Your task to perform on an android device: Go to eBay Image 0: 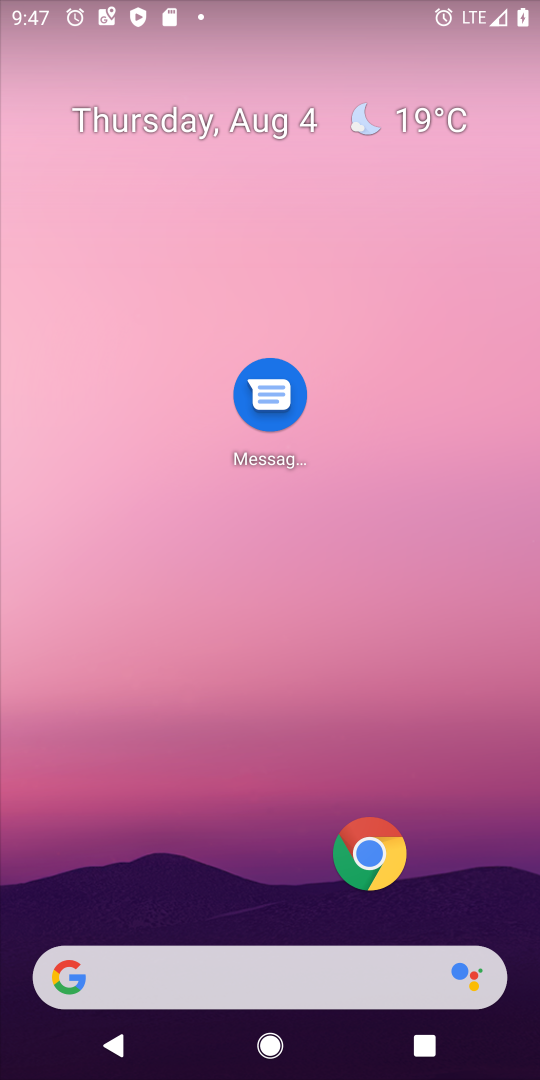
Step 0: drag from (260, 862) to (260, 360)
Your task to perform on an android device: Go to eBay Image 1: 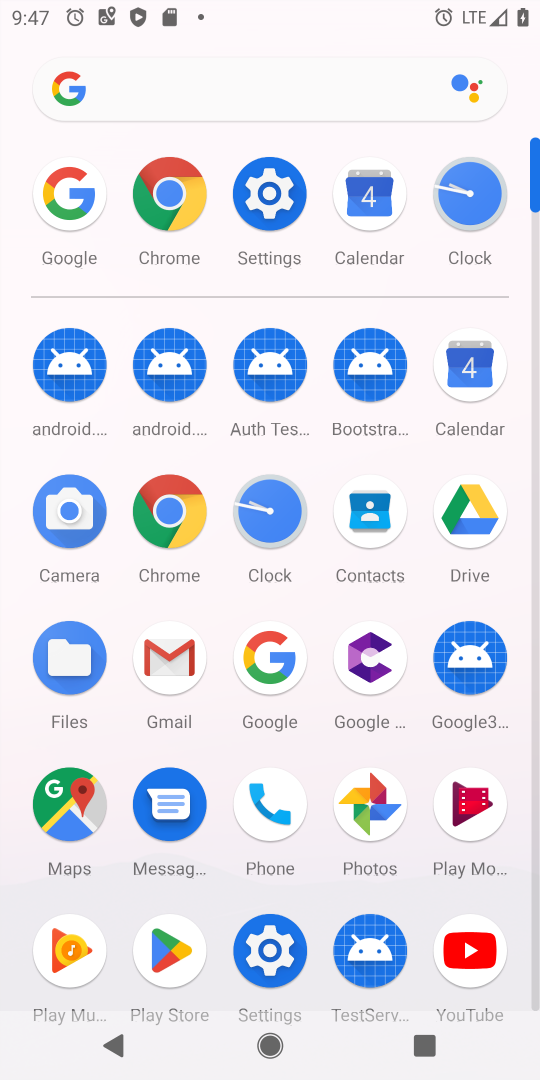
Step 1: click (60, 202)
Your task to perform on an android device: Go to eBay Image 2: 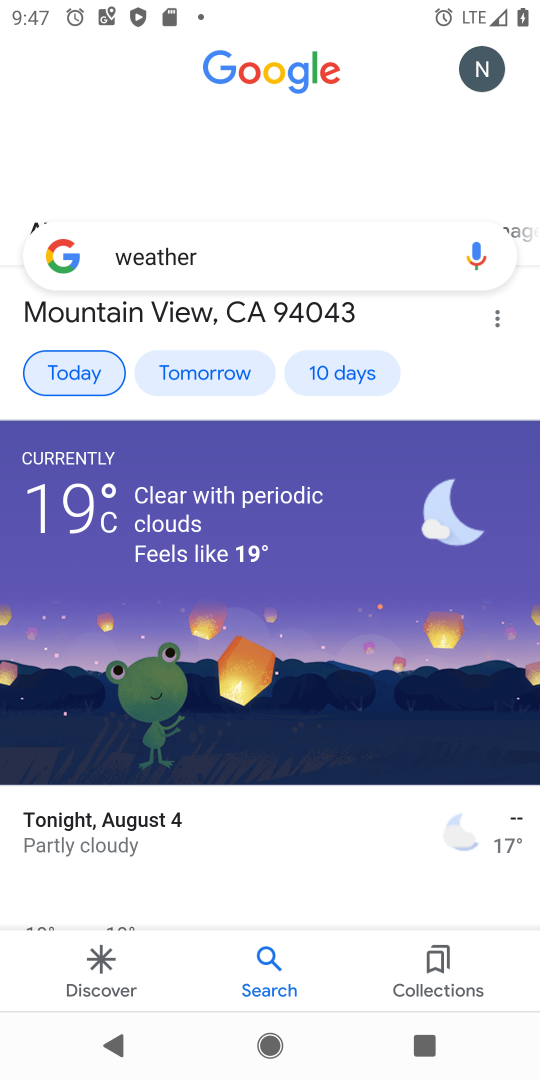
Step 2: click (212, 253)
Your task to perform on an android device: Go to eBay Image 3: 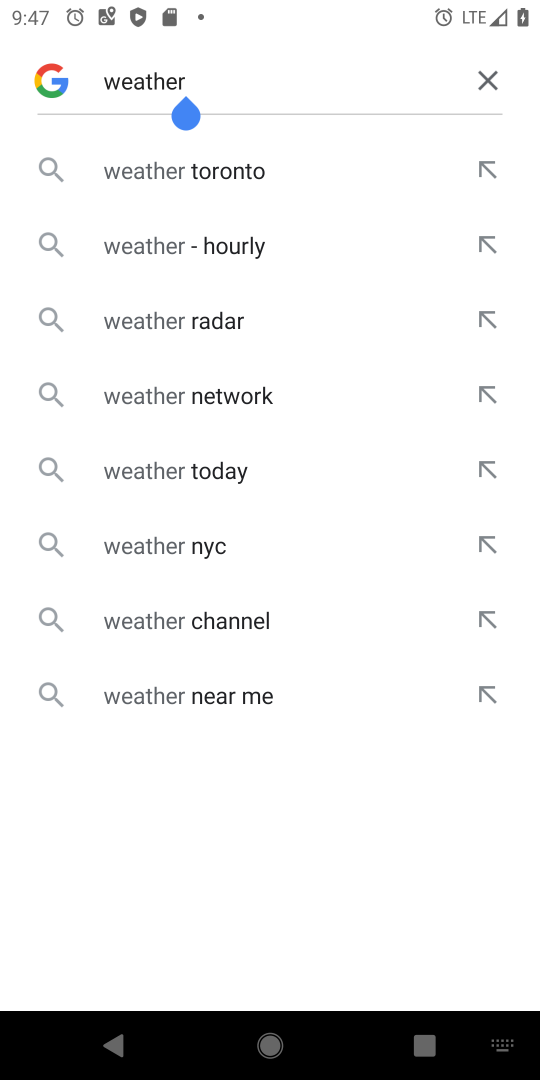
Step 3: click (486, 86)
Your task to perform on an android device: Go to eBay Image 4: 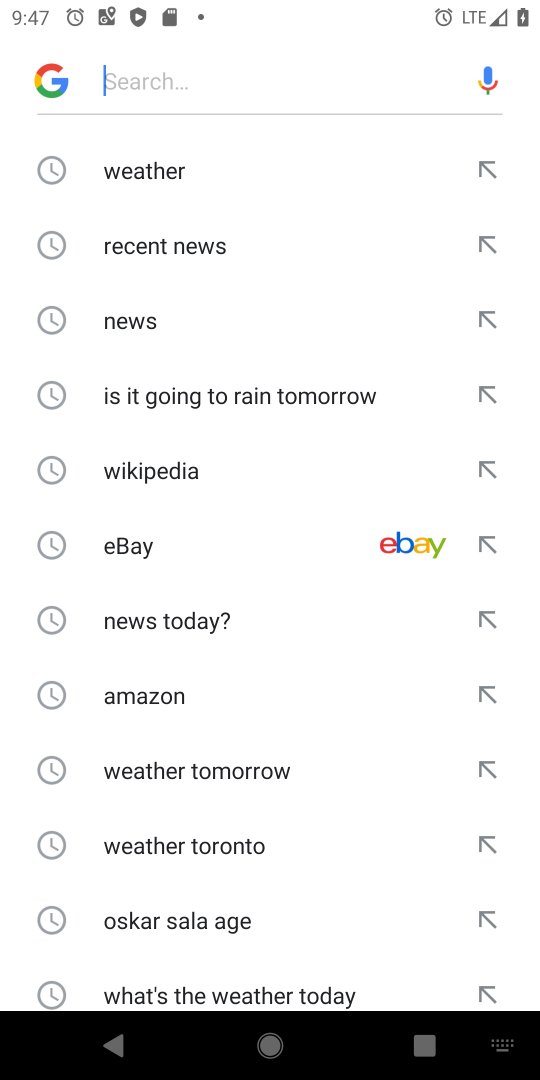
Step 4: click (184, 557)
Your task to perform on an android device: Go to eBay Image 5: 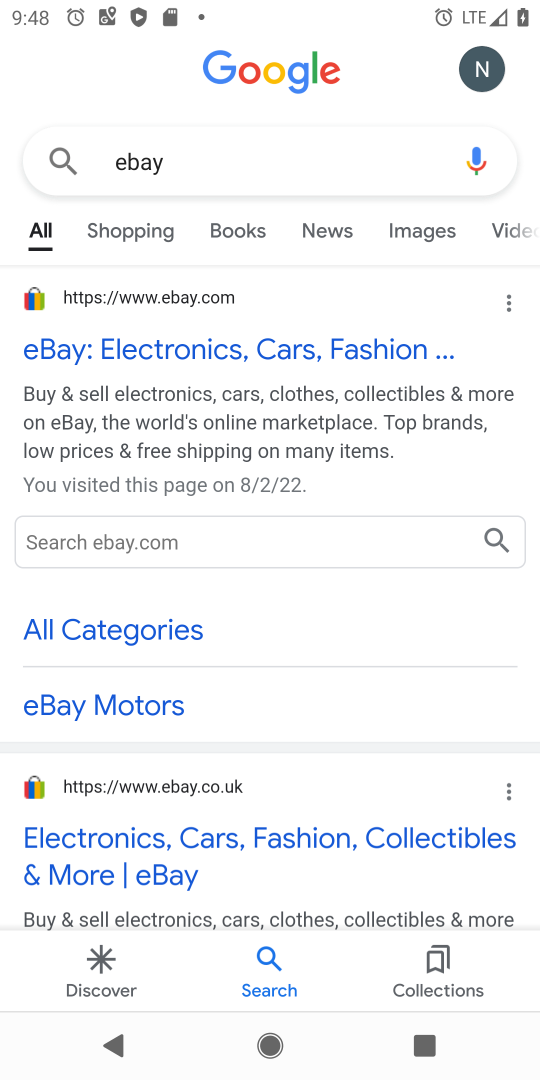
Step 5: drag from (208, 818) to (208, 450)
Your task to perform on an android device: Go to eBay Image 6: 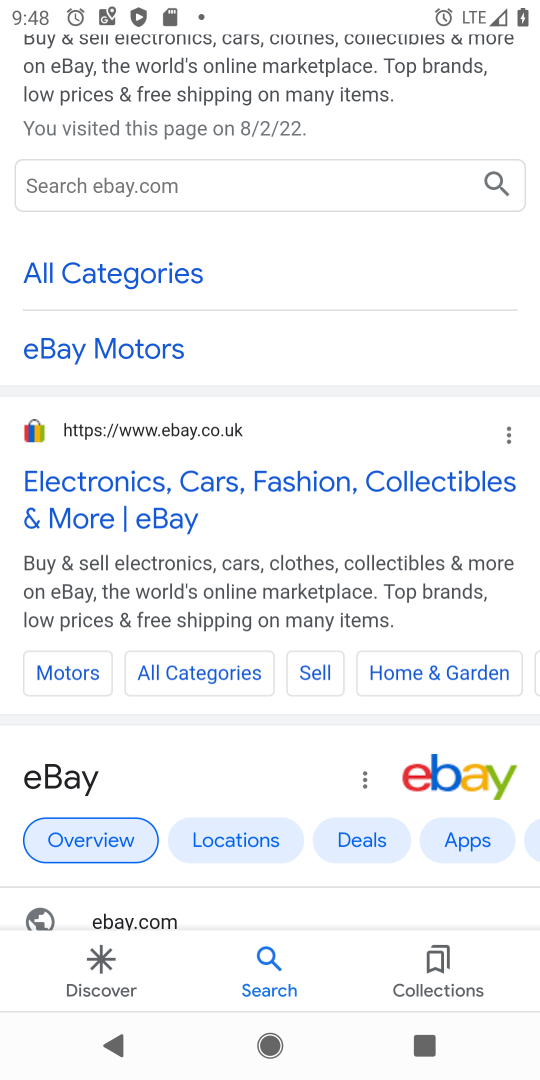
Step 6: drag from (323, 322) to (328, 774)
Your task to perform on an android device: Go to eBay Image 7: 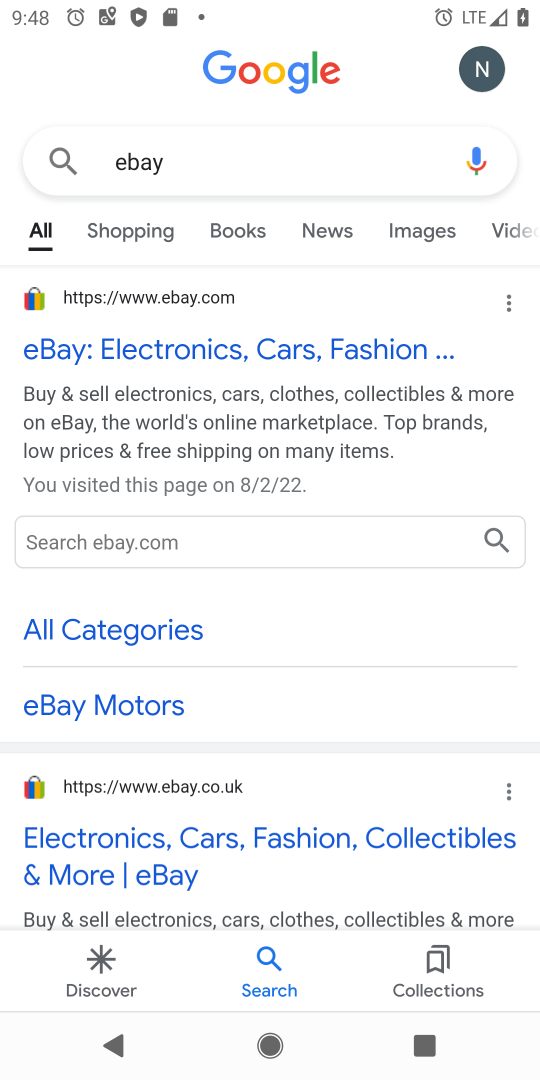
Step 7: click (162, 344)
Your task to perform on an android device: Go to eBay Image 8: 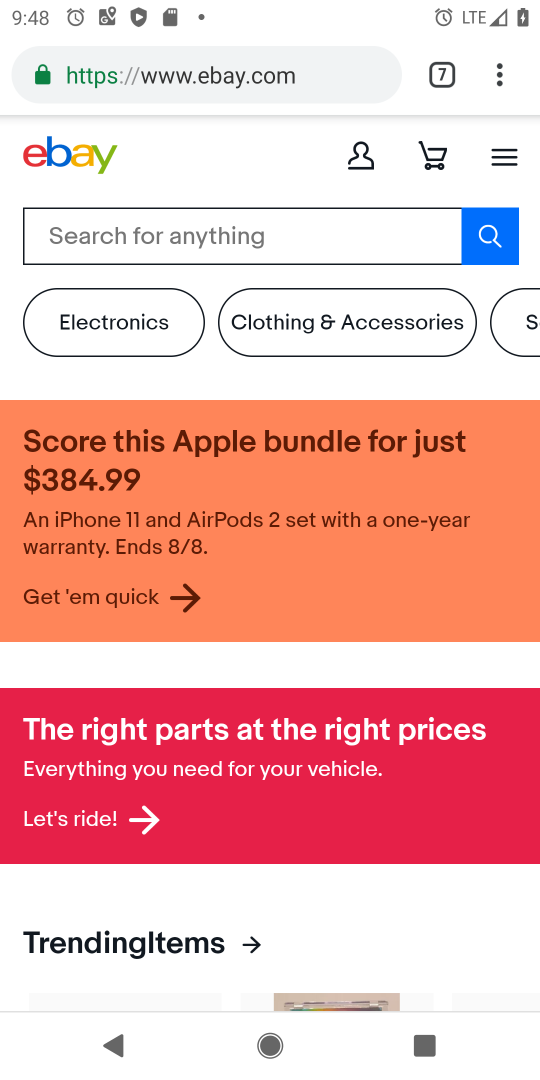
Step 8: task complete